Your task to perform on an android device: Open the calendar and show me this week's events Image 0: 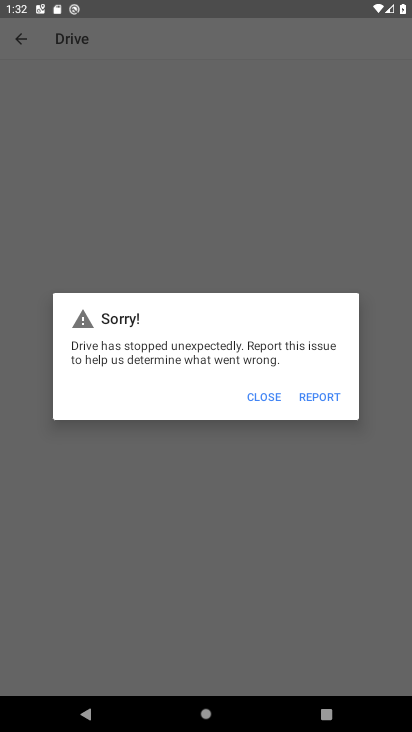
Step 0: press home button
Your task to perform on an android device: Open the calendar and show me this week's events Image 1: 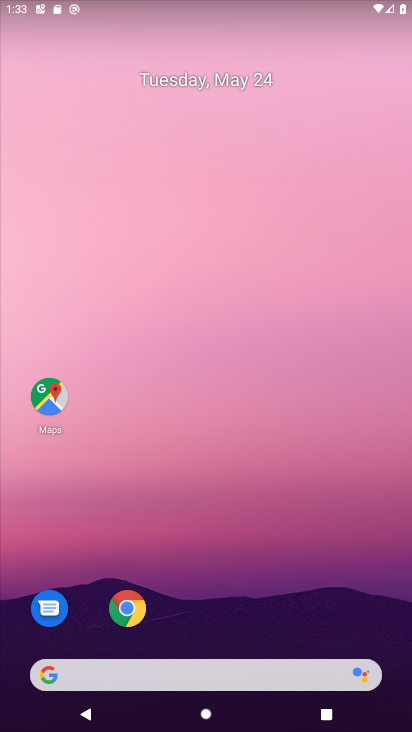
Step 1: drag from (346, 562) to (262, 165)
Your task to perform on an android device: Open the calendar and show me this week's events Image 2: 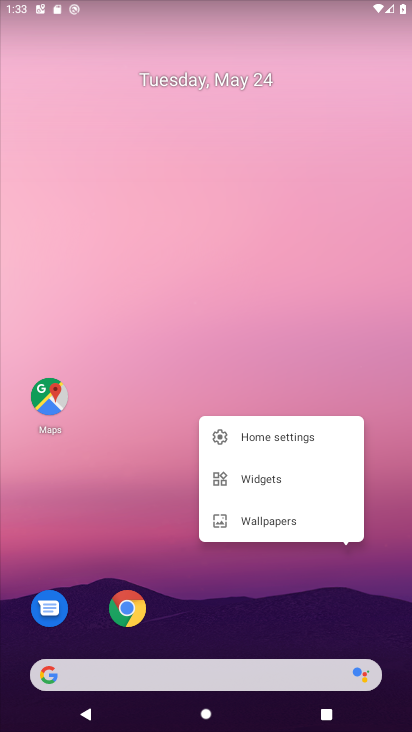
Step 2: click (253, 240)
Your task to perform on an android device: Open the calendar and show me this week's events Image 3: 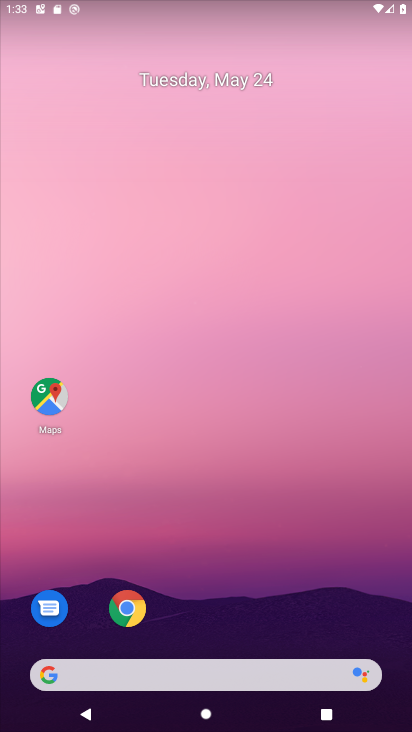
Step 3: drag from (272, 508) to (245, 213)
Your task to perform on an android device: Open the calendar and show me this week's events Image 4: 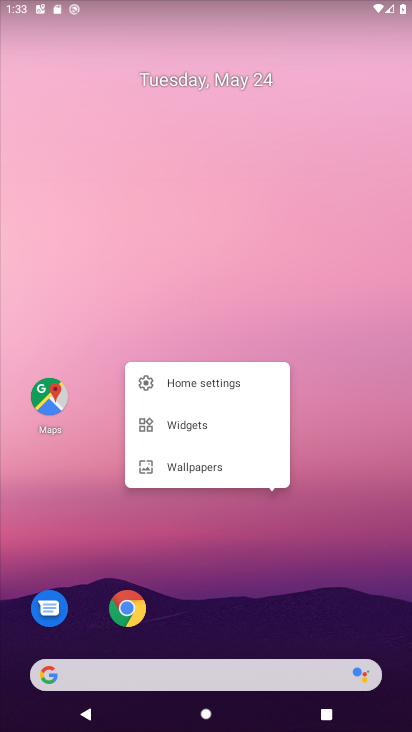
Step 4: click (245, 213)
Your task to perform on an android device: Open the calendar and show me this week's events Image 5: 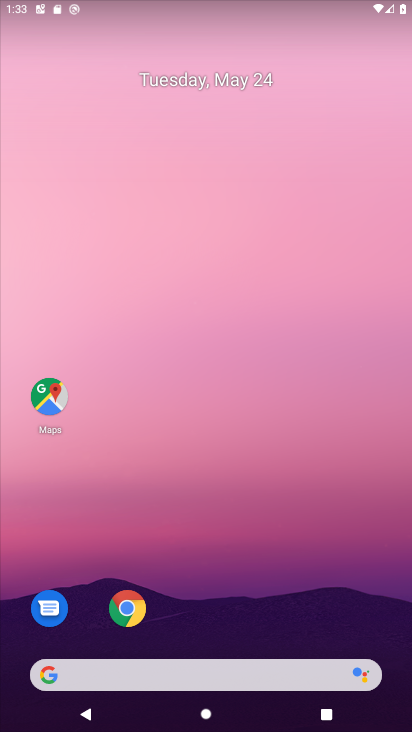
Step 5: drag from (281, 568) to (258, 237)
Your task to perform on an android device: Open the calendar and show me this week's events Image 6: 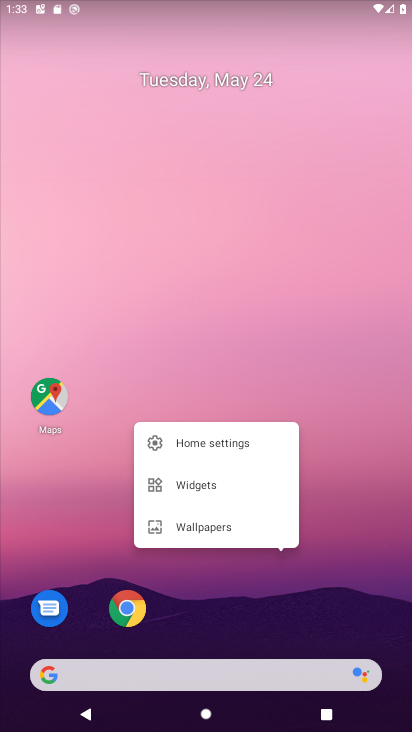
Step 6: click (381, 528)
Your task to perform on an android device: Open the calendar and show me this week's events Image 7: 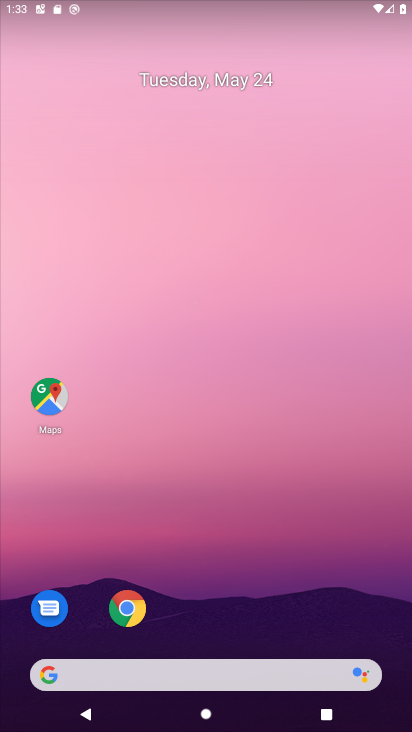
Step 7: drag from (315, 588) to (241, 122)
Your task to perform on an android device: Open the calendar and show me this week's events Image 8: 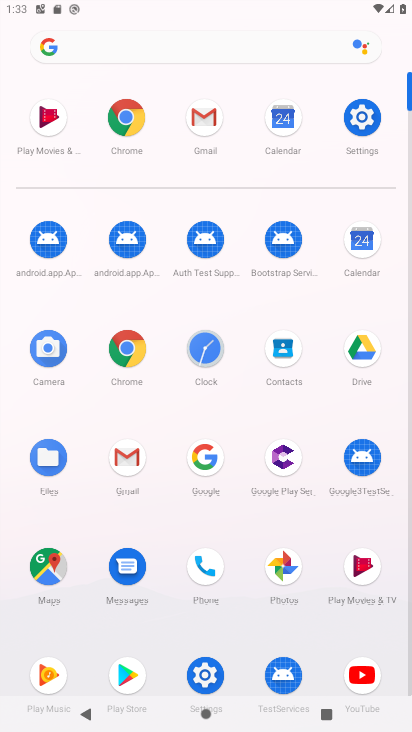
Step 8: click (368, 247)
Your task to perform on an android device: Open the calendar and show me this week's events Image 9: 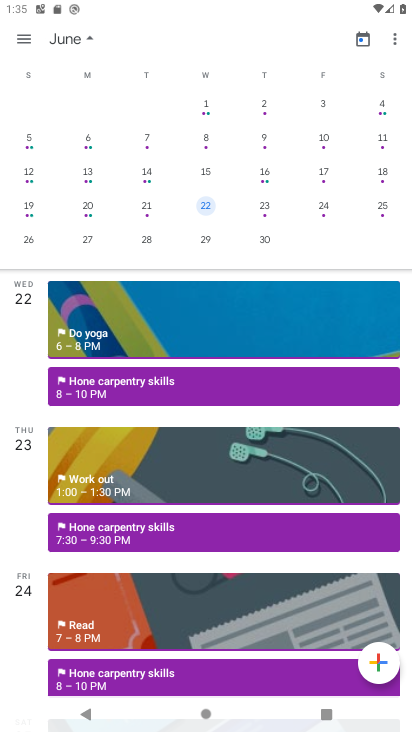
Step 9: task complete